Your task to perform on an android device: open a bookmark in the chrome app Image 0: 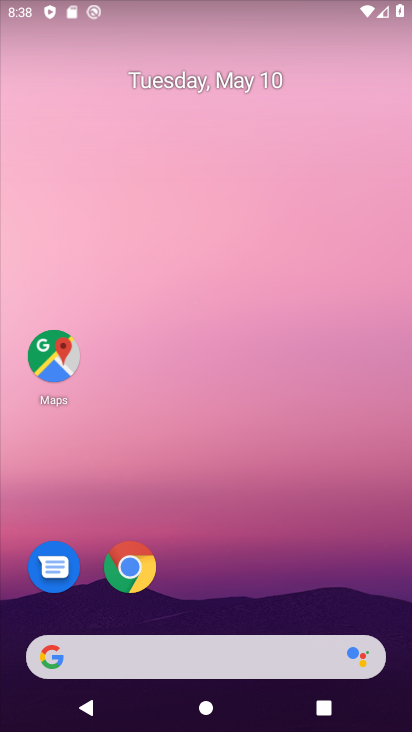
Step 0: drag from (316, 452) to (313, 122)
Your task to perform on an android device: open a bookmark in the chrome app Image 1: 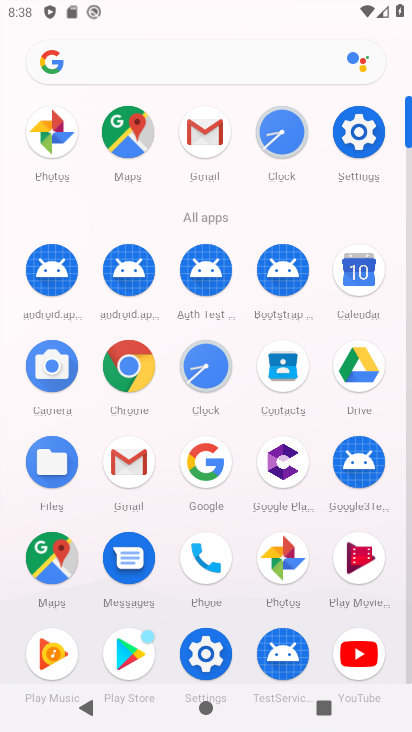
Step 1: click (120, 374)
Your task to perform on an android device: open a bookmark in the chrome app Image 2: 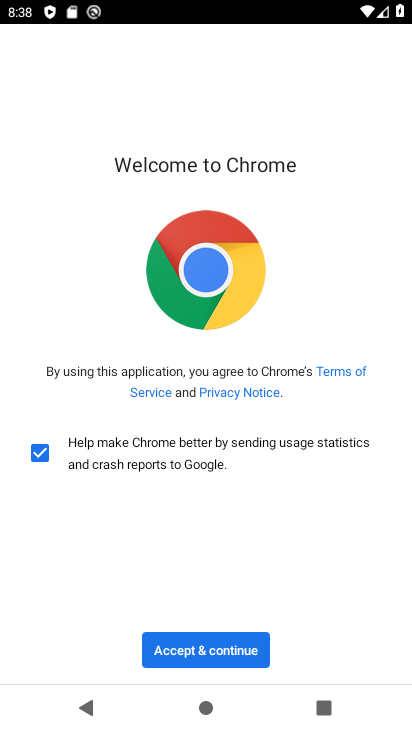
Step 2: click (190, 646)
Your task to perform on an android device: open a bookmark in the chrome app Image 3: 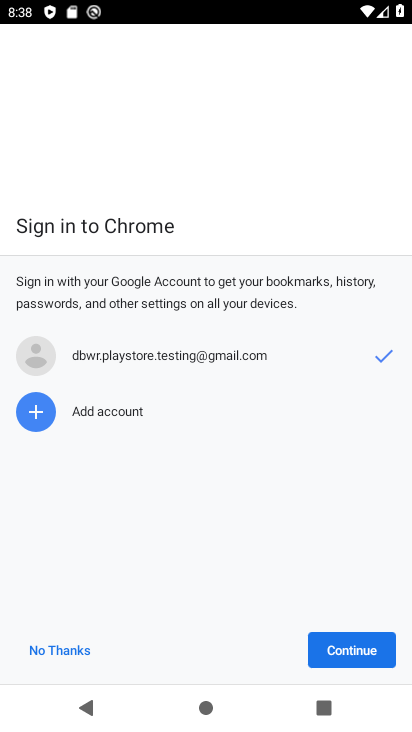
Step 3: click (48, 654)
Your task to perform on an android device: open a bookmark in the chrome app Image 4: 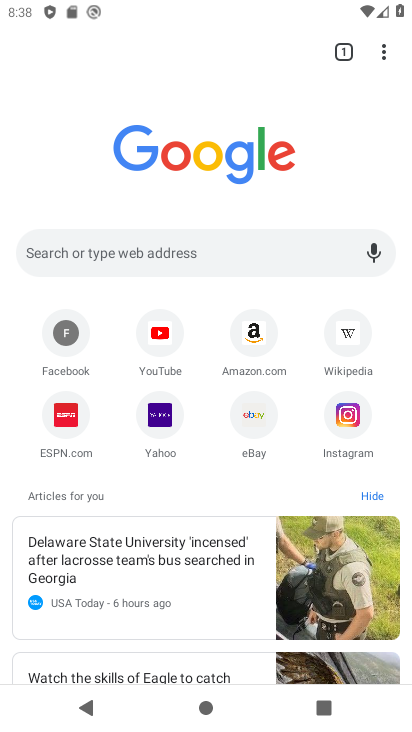
Step 4: drag from (375, 57) to (273, 188)
Your task to perform on an android device: open a bookmark in the chrome app Image 5: 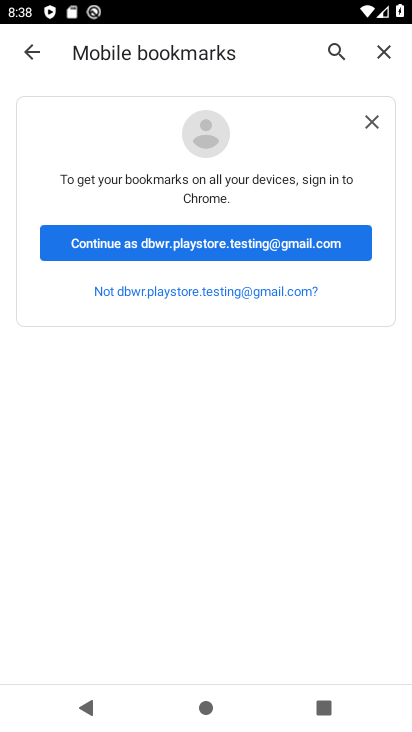
Step 5: click (218, 244)
Your task to perform on an android device: open a bookmark in the chrome app Image 6: 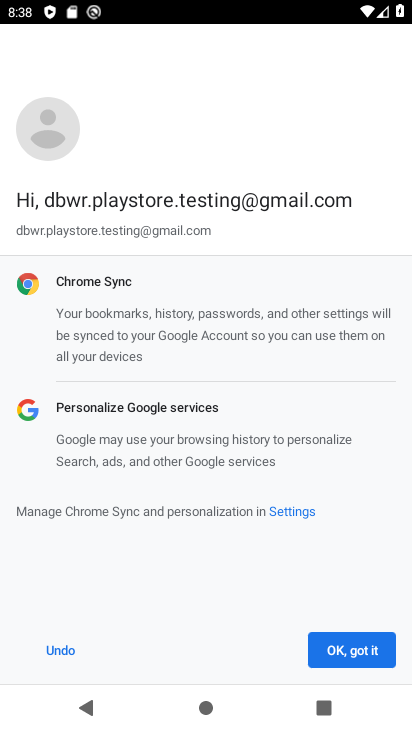
Step 6: click (362, 657)
Your task to perform on an android device: open a bookmark in the chrome app Image 7: 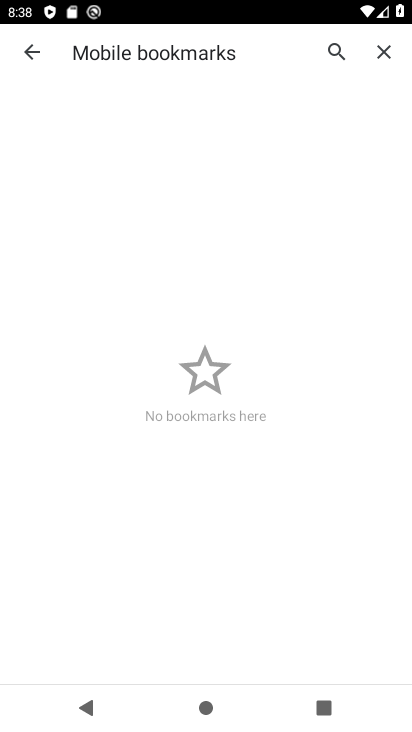
Step 7: task complete